Your task to perform on an android device: toggle location history Image 0: 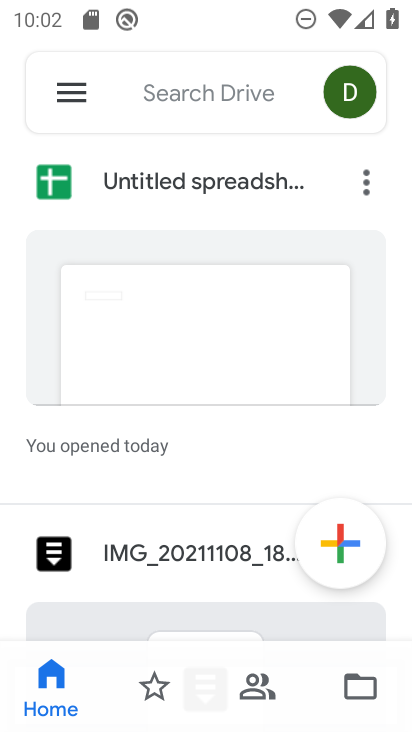
Step 0: press home button
Your task to perform on an android device: toggle location history Image 1: 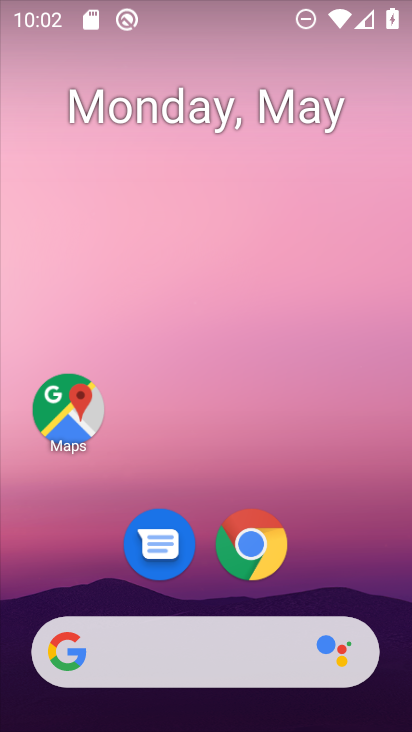
Step 1: drag from (348, 541) to (198, 87)
Your task to perform on an android device: toggle location history Image 2: 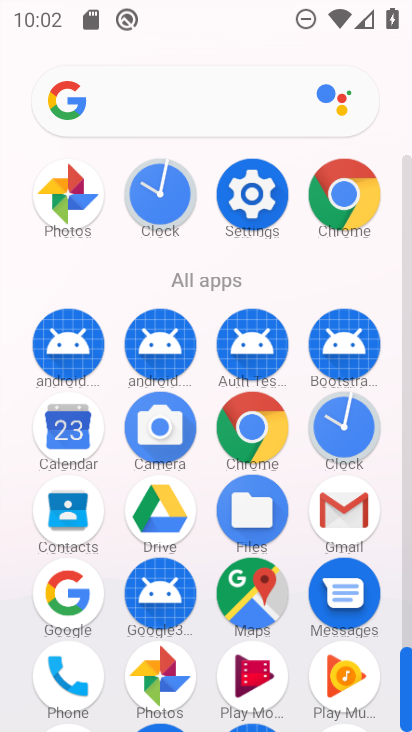
Step 2: click (253, 192)
Your task to perform on an android device: toggle location history Image 3: 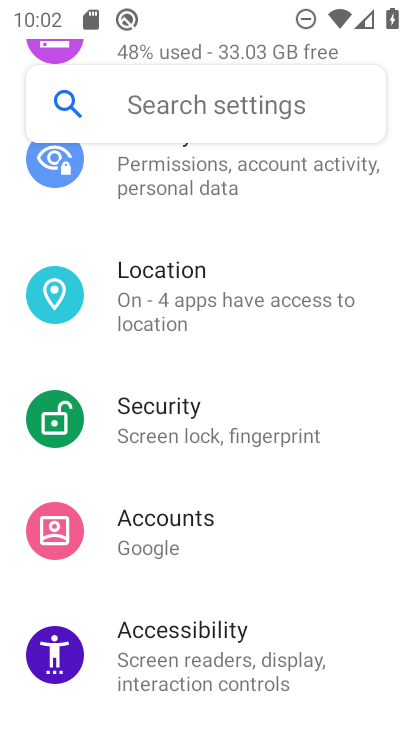
Step 3: click (227, 303)
Your task to perform on an android device: toggle location history Image 4: 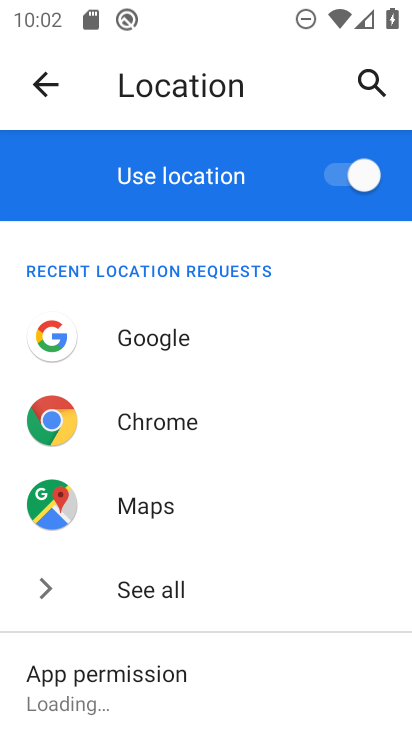
Step 4: drag from (234, 647) to (275, 257)
Your task to perform on an android device: toggle location history Image 5: 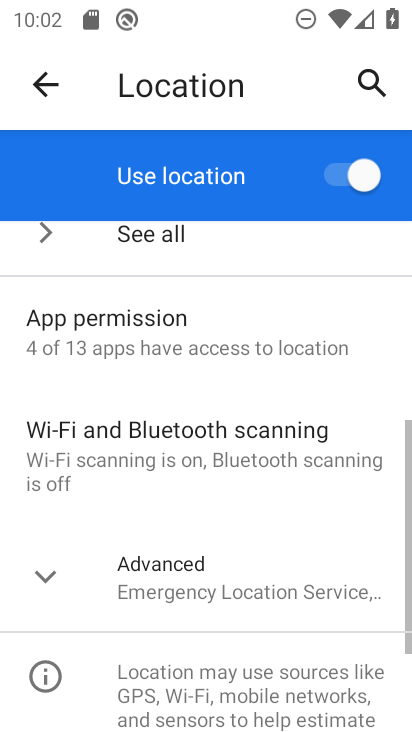
Step 5: click (200, 573)
Your task to perform on an android device: toggle location history Image 6: 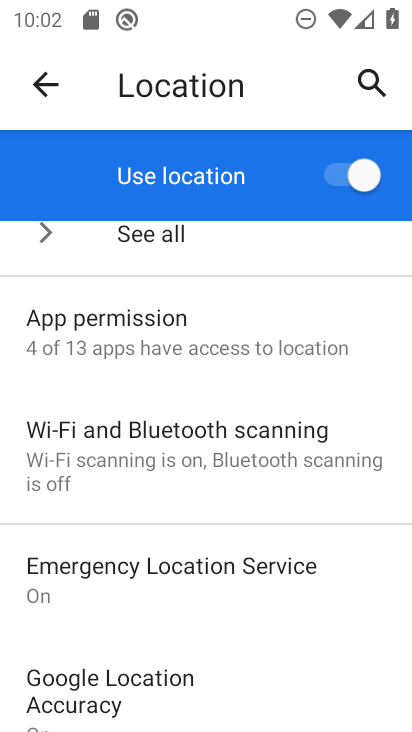
Step 6: drag from (221, 654) to (217, 407)
Your task to perform on an android device: toggle location history Image 7: 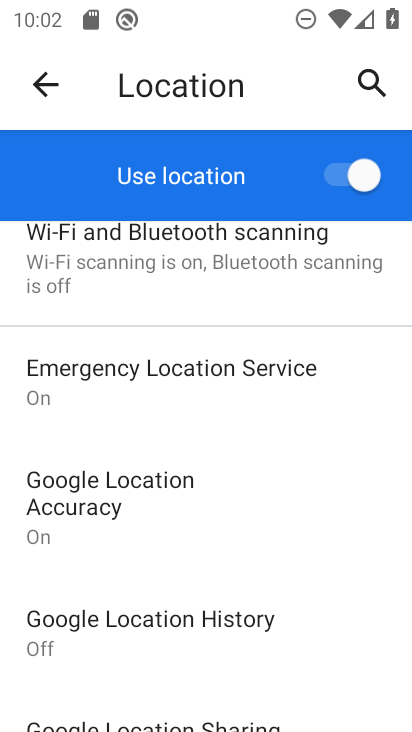
Step 7: click (138, 629)
Your task to perform on an android device: toggle location history Image 8: 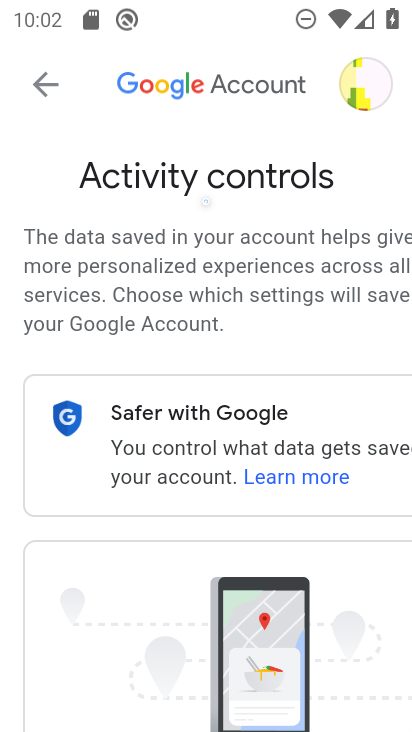
Step 8: drag from (224, 619) to (170, 265)
Your task to perform on an android device: toggle location history Image 9: 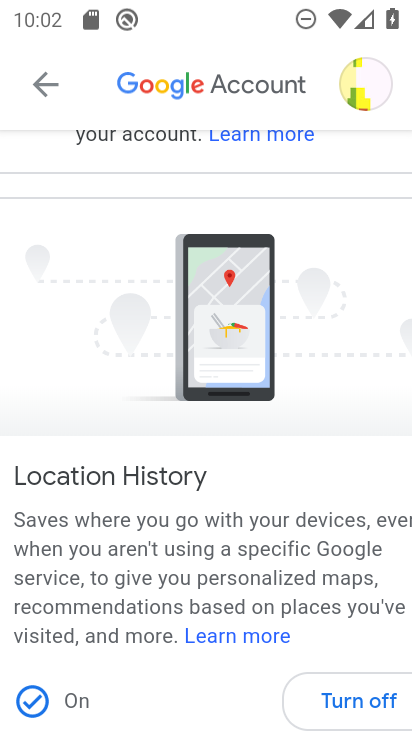
Step 9: click (340, 700)
Your task to perform on an android device: toggle location history Image 10: 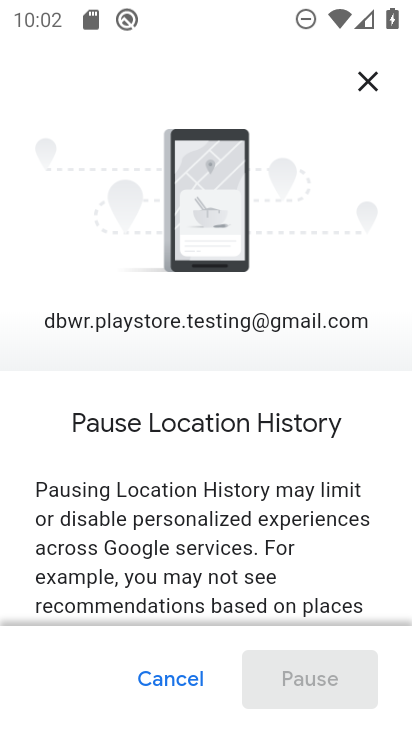
Step 10: drag from (296, 537) to (275, 130)
Your task to perform on an android device: toggle location history Image 11: 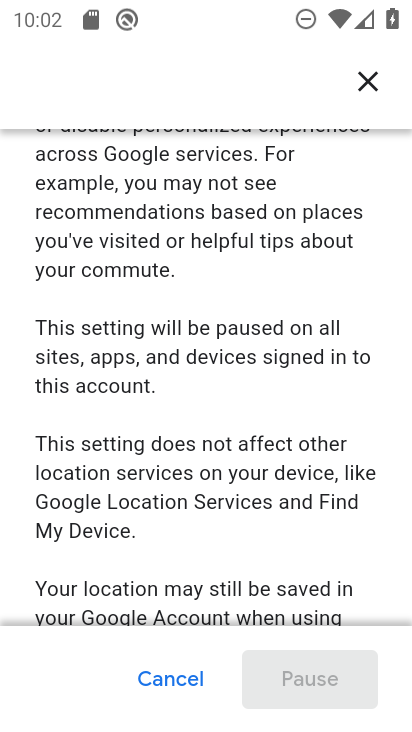
Step 11: drag from (313, 533) to (310, 323)
Your task to perform on an android device: toggle location history Image 12: 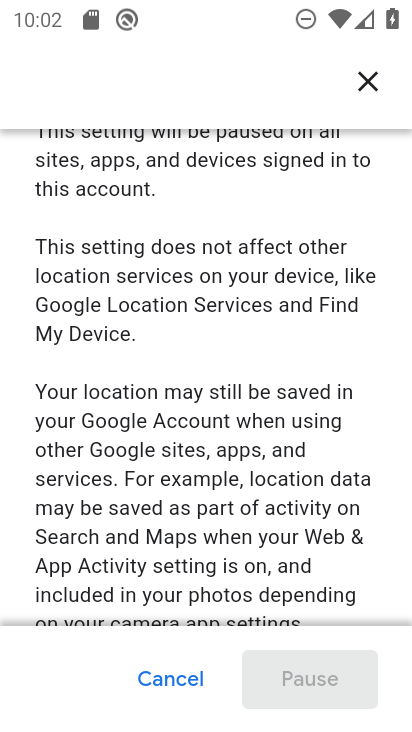
Step 12: drag from (282, 576) to (210, 171)
Your task to perform on an android device: toggle location history Image 13: 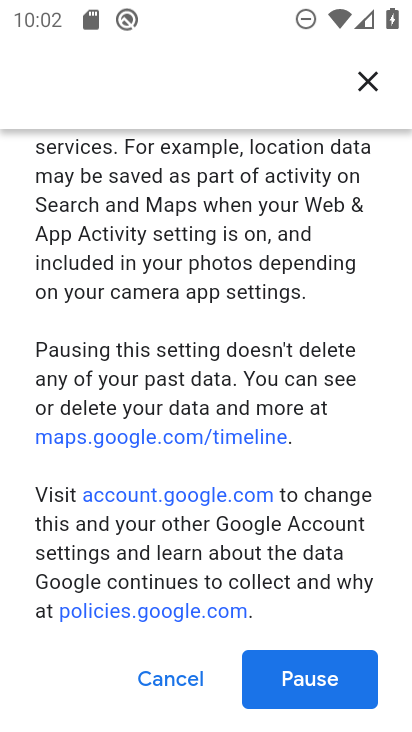
Step 13: click (310, 692)
Your task to perform on an android device: toggle location history Image 14: 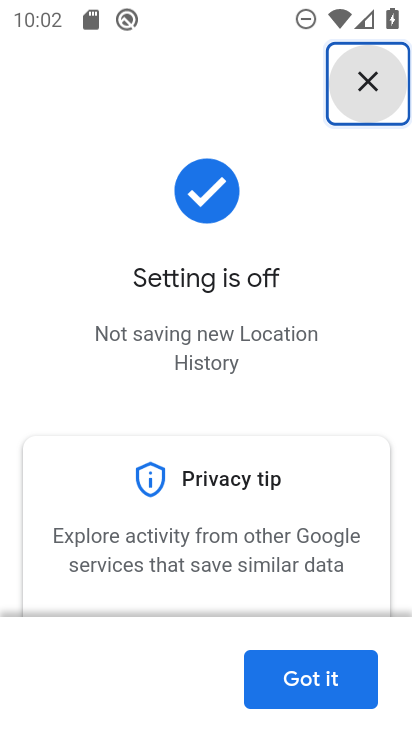
Step 14: click (310, 692)
Your task to perform on an android device: toggle location history Image 15: 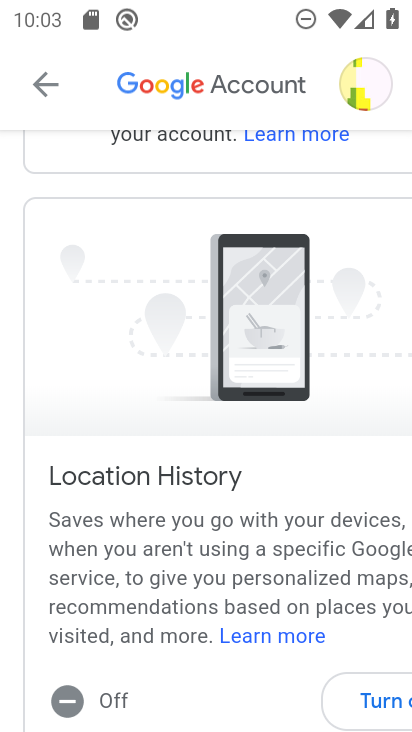
Step 15: task complete